Your task to perform on an android device: Set the phone to "Do not disturb". Image 0: 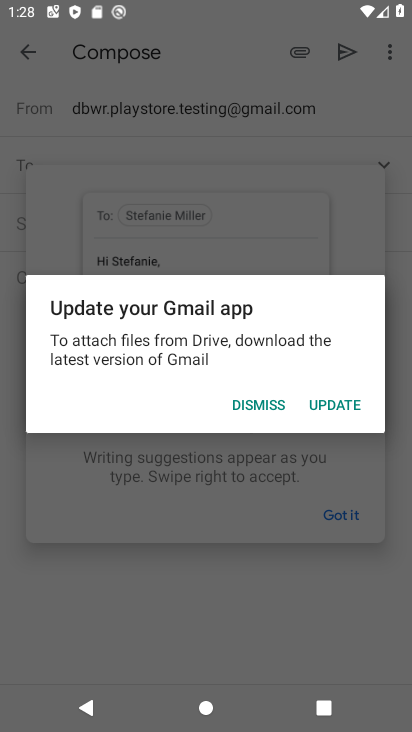
Step 0: press home button
Your task to perform on an android device: Set the phone to "Do not disturb". Image 1: 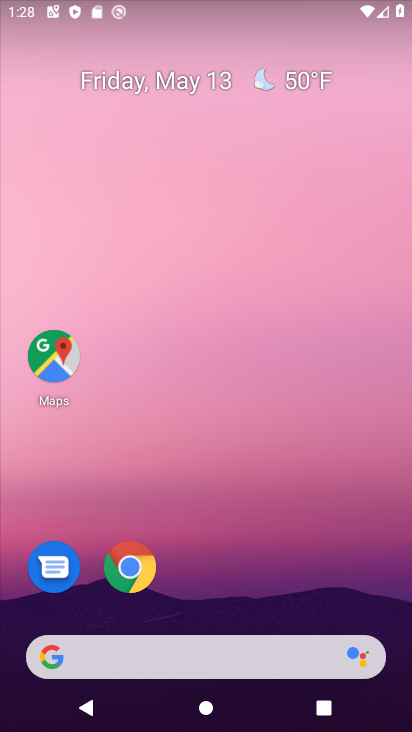
Step 1: drag from (229, 518) to (313, 131)
Your task to perform on an android device: Set the phone to "Do not disturb". Image 2: 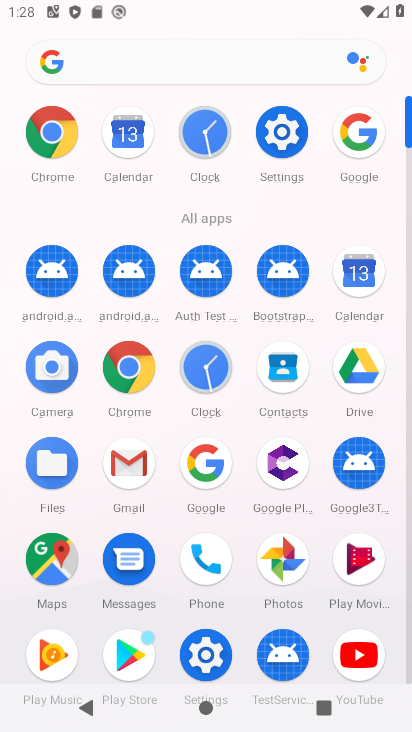
Step 2: click (307, 137)
Your task to perform on an android device: Set the phone to "Do not disturb". Image 3: 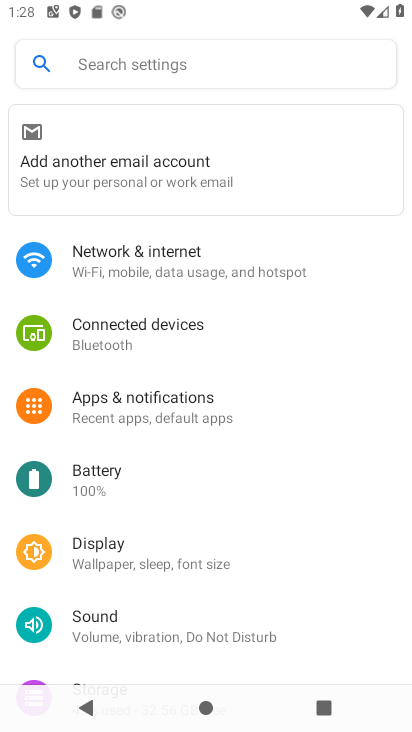
Step 3: drag from (78, 655) to (199, 333)
Your task to perform on an android device: Set the phone to "Do not disturb". Image 4: 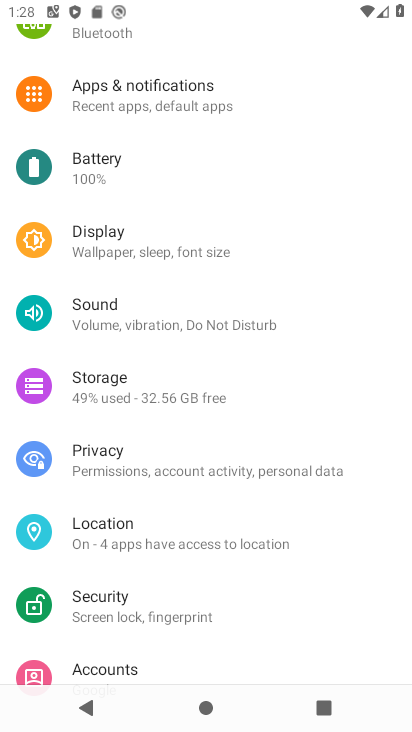
Step 4: click (137, 328)
Your task to perform on an android device: Set the phone to "Do not disturb". Image 5: 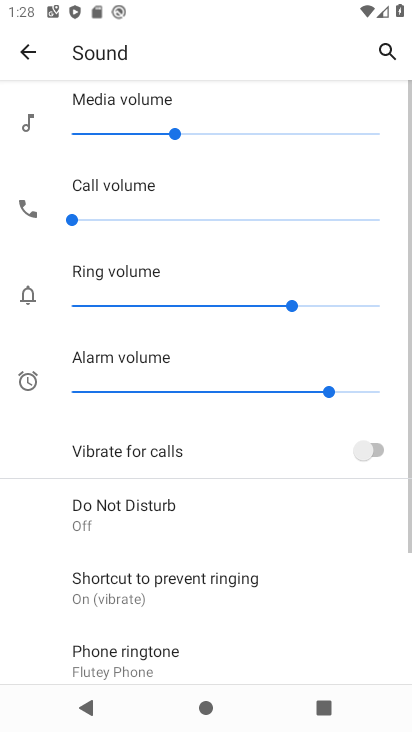
Step 5: drag from (131, 601) to (185, 269)
Your task to perform on an android device: Set the phone to "Do not disturb". Image 6: 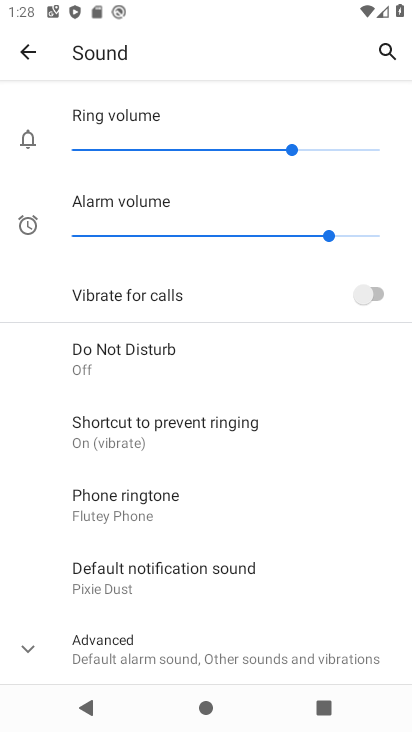
Step 6: click (126, 359)
Your task to perform on an android device: Set the phone to "Do not disturb". Image 7: 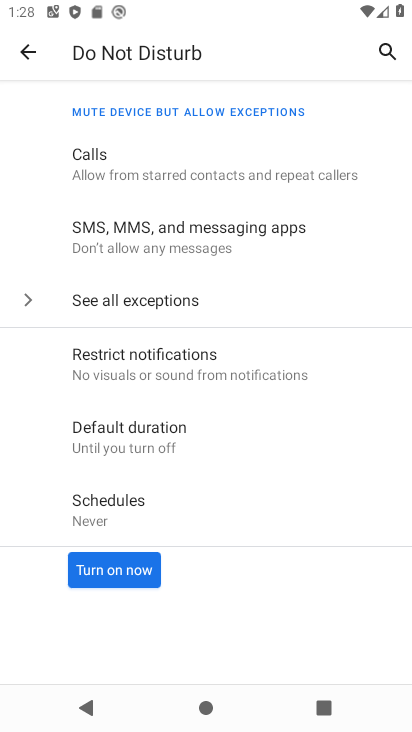
Step 7: click (75, 571)
Your task to perform on an android device: Set the phone to "Do not disturb". Image 8: 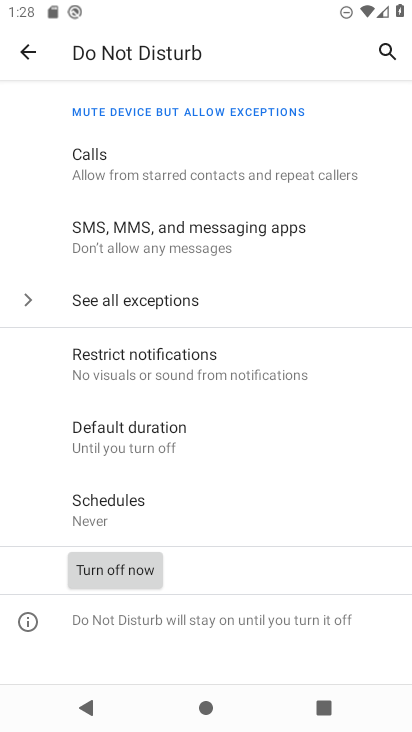
Step 8: click (91, 574)
Your task to perform on an android device: Set the phone to "Do not disturb". Image 9: 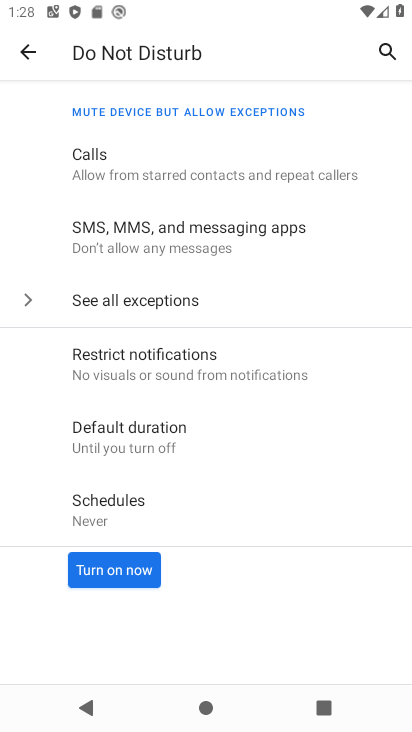
Step 9: click (91, 574)
Your task to perform on an android device: Set the phone to "Do not disturb". Image 10: 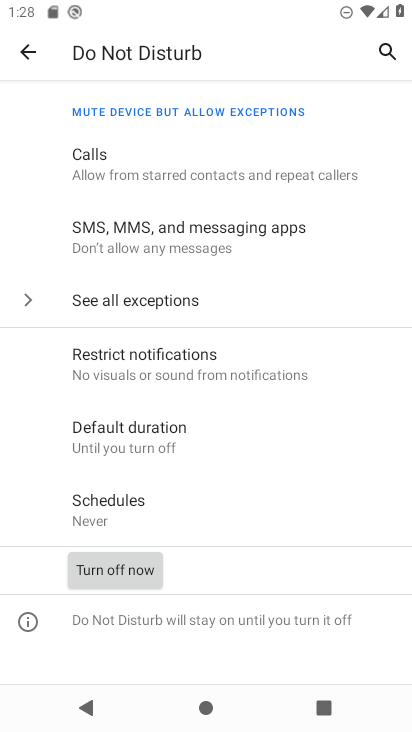
Step 10: task complete